Your task to perform on an android device: find photos in the google photos app Image 0: 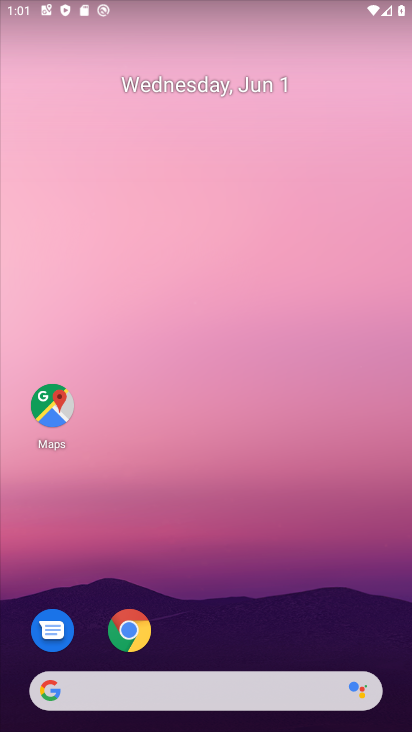
Step 0: press home button
Your task to perform on an android device: find photos in the google photos app Image 1: 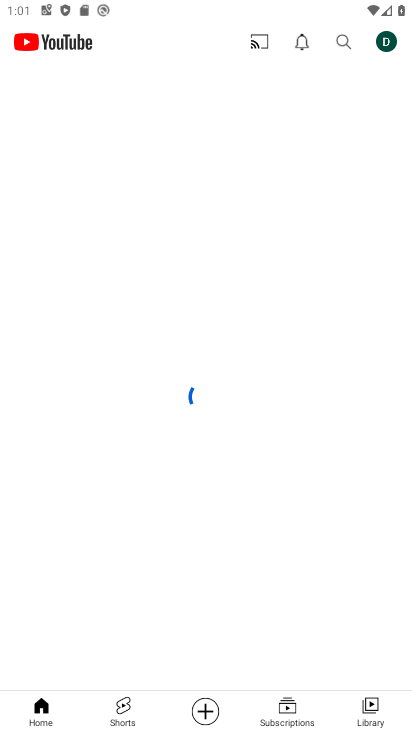
Step 1: drag from (249, 635) to (229, 118)
Your task to perform on an android device: find photos in the google photos app Image 2: 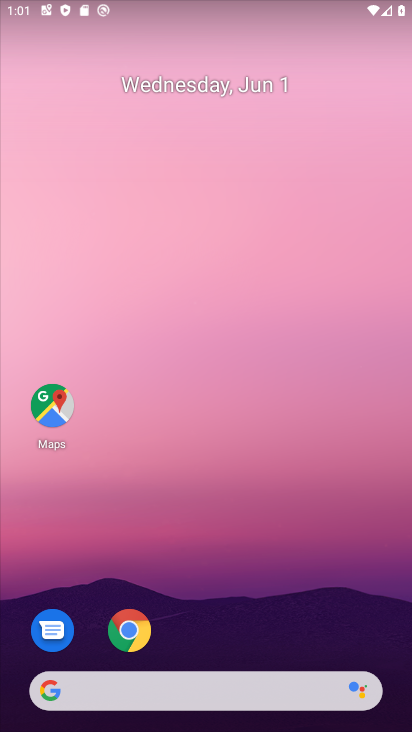
Step 2: drag from (266, 647) to (239, 122)
Your task to perform on an android device: find photos in the google photos app Image 3: 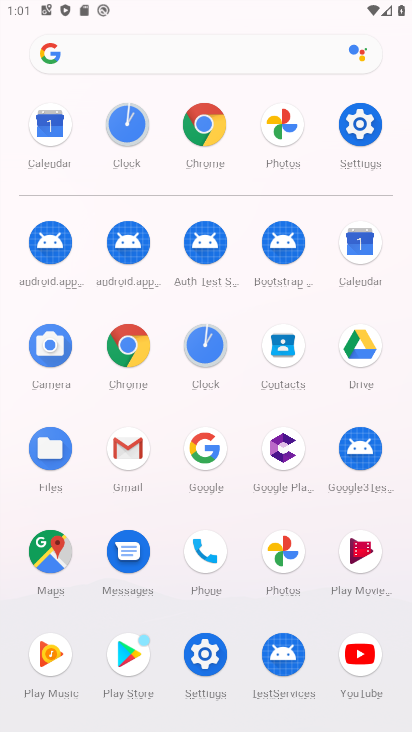
Step 3: click (278, 117)
Your task to perform on an android device: find photos in the google photos app Image 4: 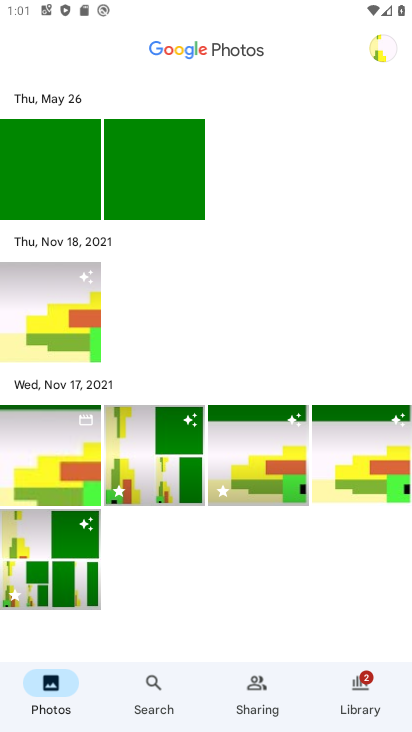
Step 4: click (43, 684)
Your task to perform on an android device: find photos in the google photos app Image 5: 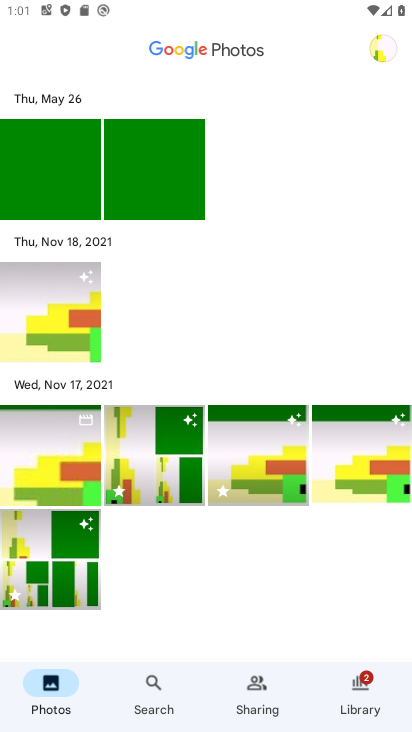
Step 5: task complete